Your task to perform on an android device: add a contact in the contacts app Image 0: 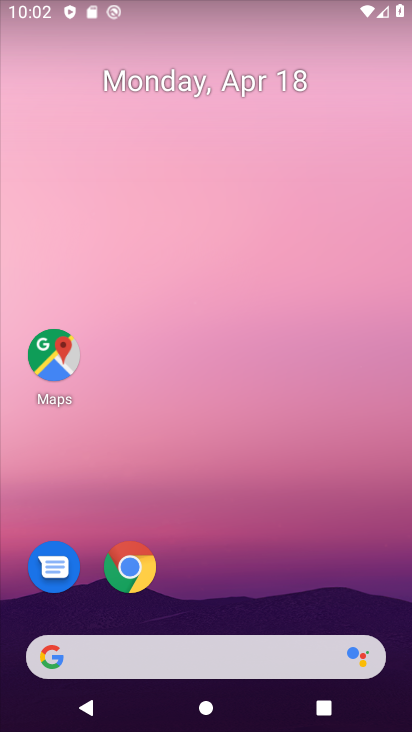
Step 0: drag from (219, 594) to (263, 38)
Your task to perform on an android device: add a contact in the contacts app Image 1: 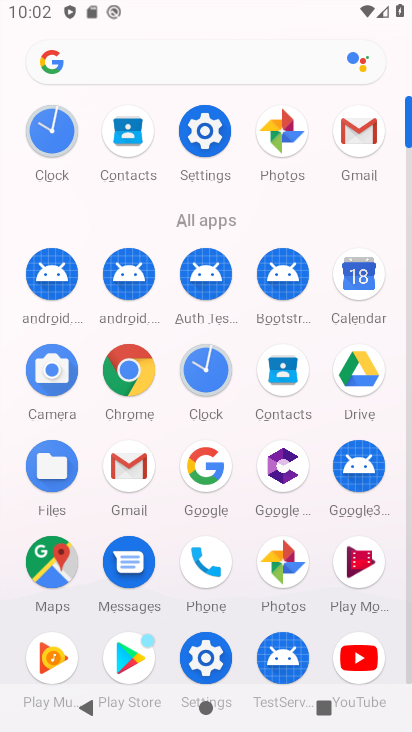
Step 1: click (133, 138)
Your task to perform on an android device: add a contact in the contacts app Image 2: 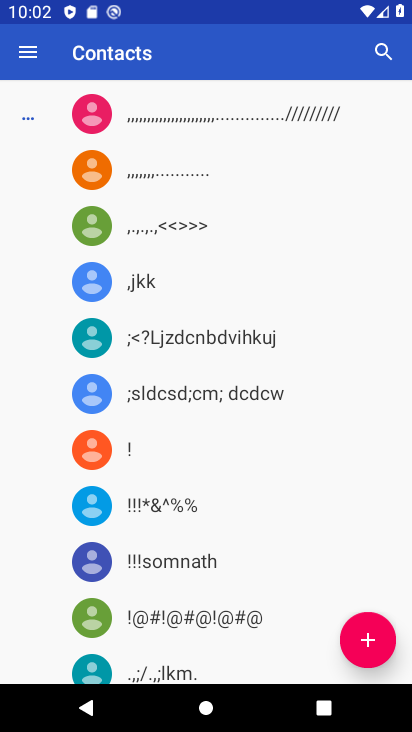
Step 2: click (370, 635)
Your task to perform on an android device: add a contact in the contacts app Image 3: 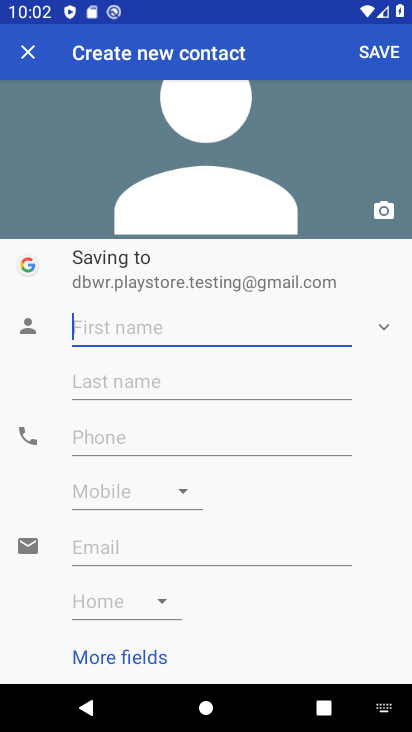
Step 3: click (97, 330)
Your task to perform on an android device: add a contact in the contacts app Image 4: 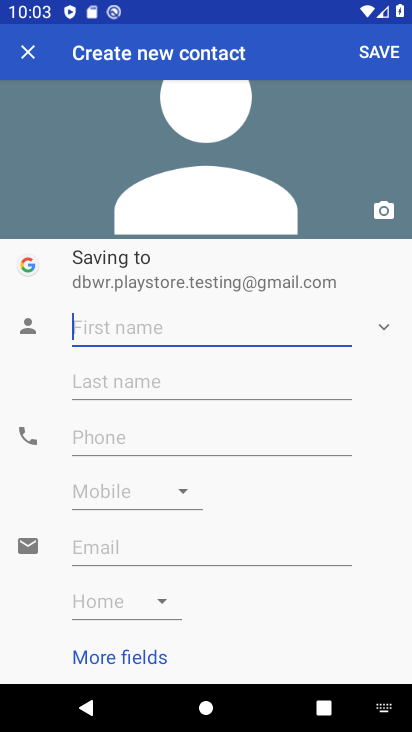
Step 4: type "fast"
Your task to perform on an android device: add a contact in the contacts app Image 5: 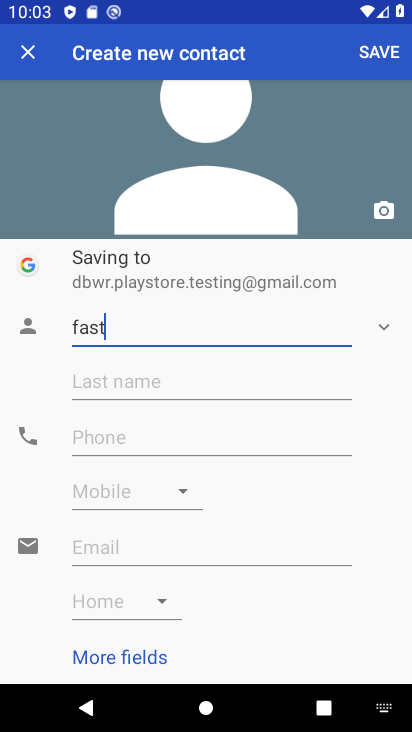
Step 5: click (111, 435)
Your task to perform on an android device: add a contact in the contacts app Image 6: 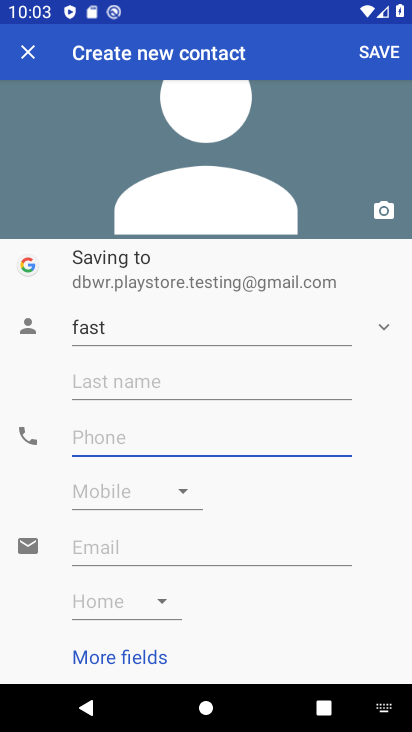
Step 6: type "0987456785"
Your task to perform on an android device: add a contact in the contacts app Image 7: 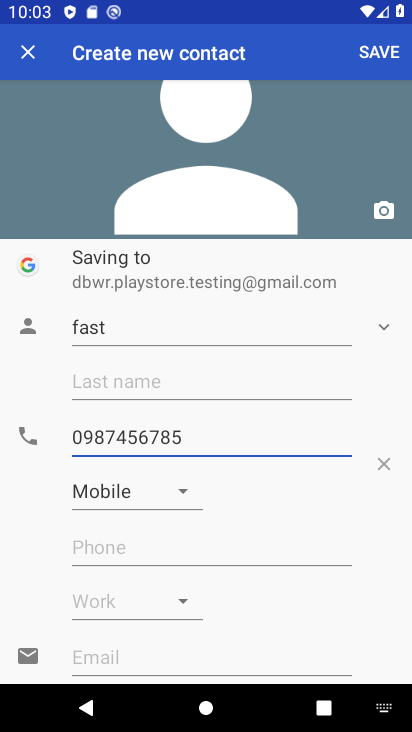
Step 7: click (377, 44)
Your task to perform on an android device: add a contact in the contacts app Image 8: 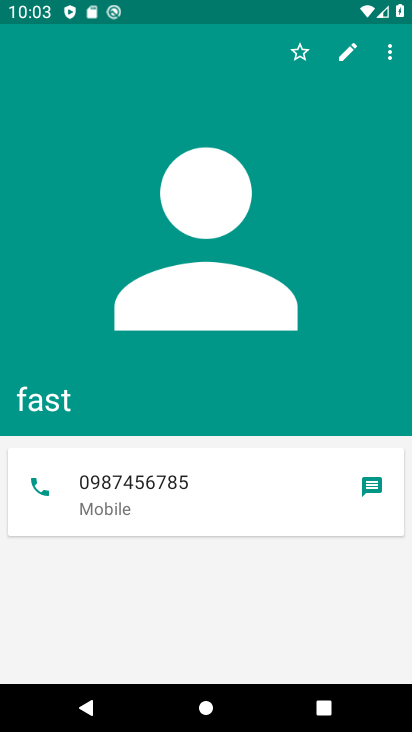
Step 8: task complete